Your task to perform on an android device: What is the recent news? Image 0: 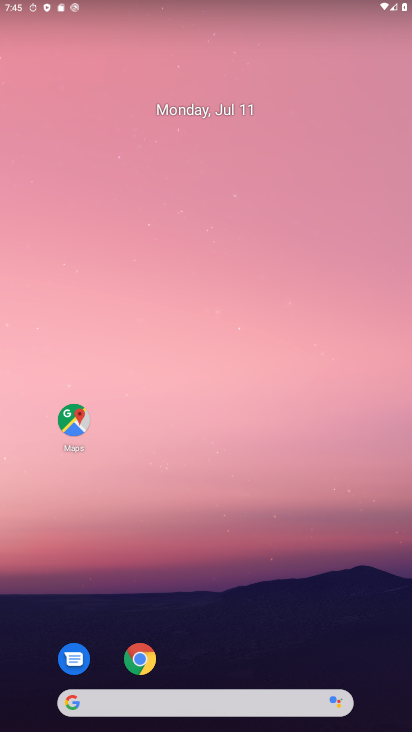
Step 0: drag from (251, 651) to (264, 30)
Your task to perform on an android device: What is the recent news? Image 1: 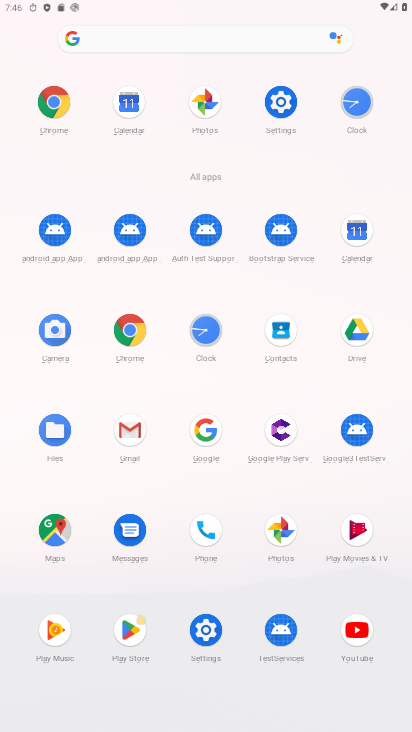
Step 1: click (54, 104)
Your task to perform on an android device: What is the recent news? Image 2: 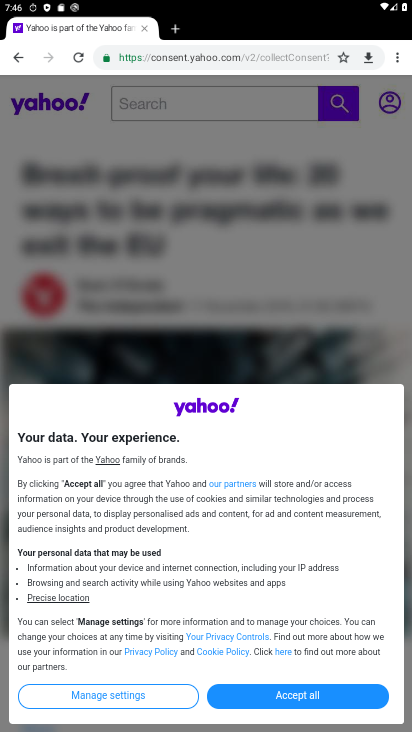
Step 2: click (20, 60)
Your task to perform on an android device: What is the recent news? Image 3: 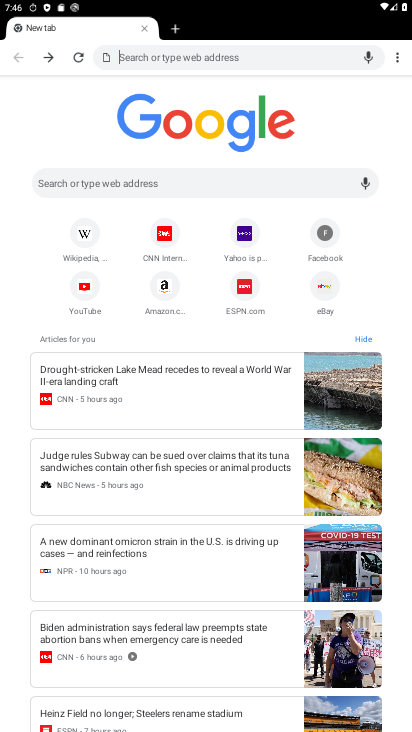
Step 3: task complete